Your task to perform on an android device: turn off translation in the chrome app Image 0: 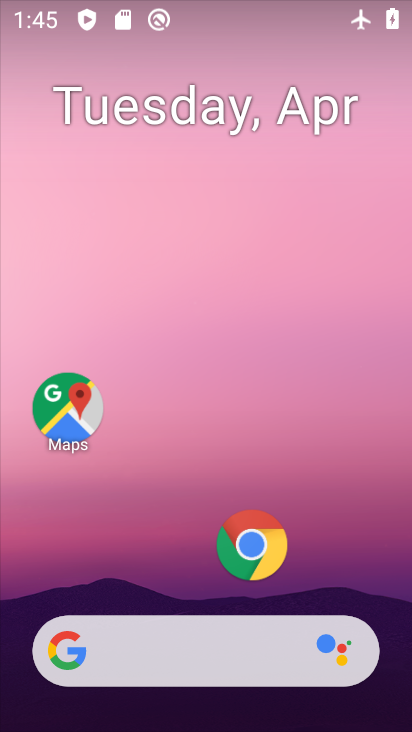
Step 0: drag from (147, 528) to (207, 176)
Your task to perform on an android device: turn off translation in the chrome app Image 1: 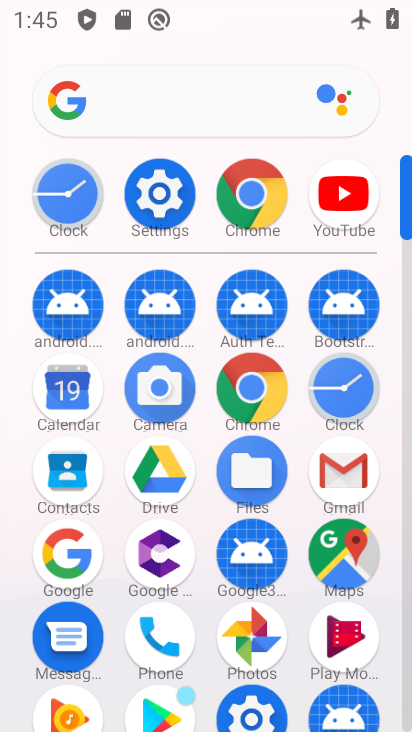
Step 1: click (270, 183)
Your task to perform on an android device: turn off translation in the chrome app Image 2: 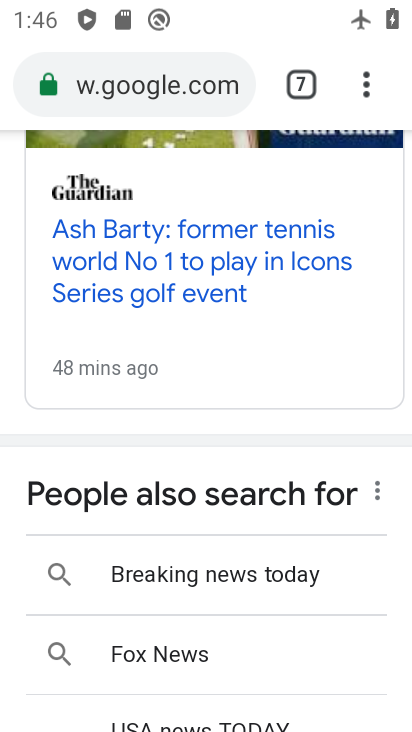
Step 2: click (369, 87)
Your task to perform on an android device: turn off translation in the chrome app Image 3: 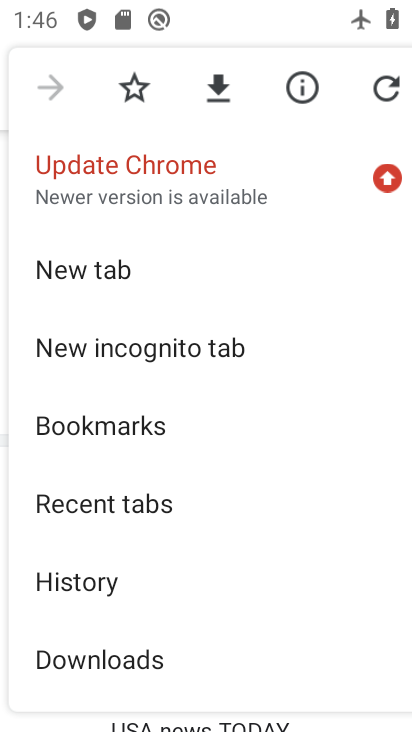
Step 3: drag from (203, 592) to (264, 235)
Your task to perform on an android device: turn off translation in the chrome app Image 4: 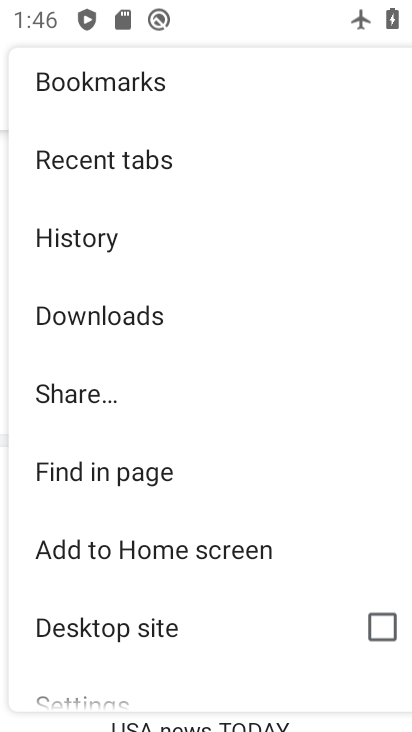
Step 4: drag from (144, 629) to (223, 305)
Your task to perform on an android device: turn off translation in the chrome app Image 5: 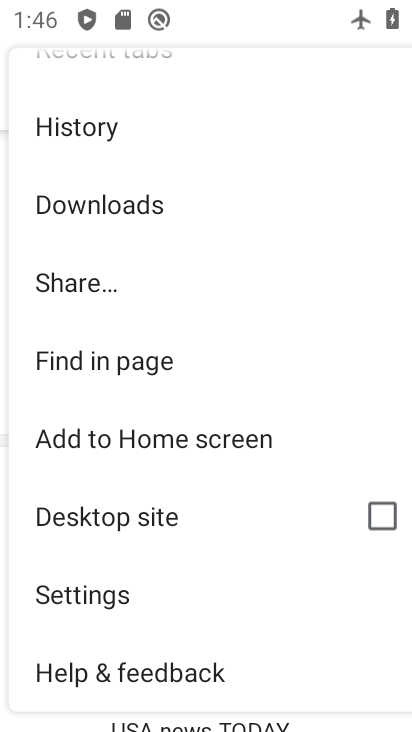
Step 5: click (133, 589)
Your task to perform on an android device: turn off translation in the chrome app Image 6: 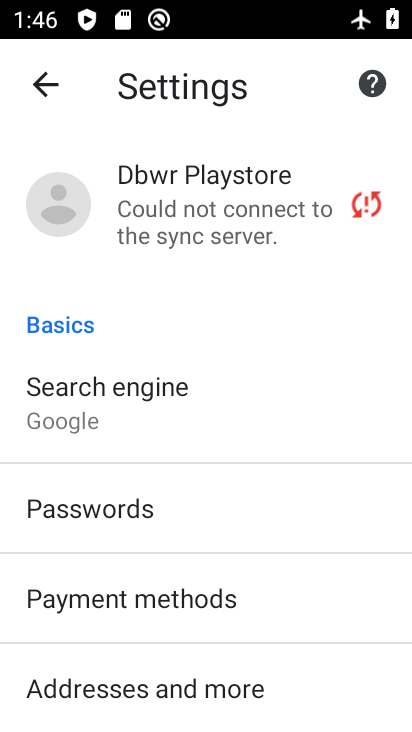
Step 6: drag from (236, 643) to (323, 179)
Your task to perform on an android device: turn off translation in the chrome app Image 7: 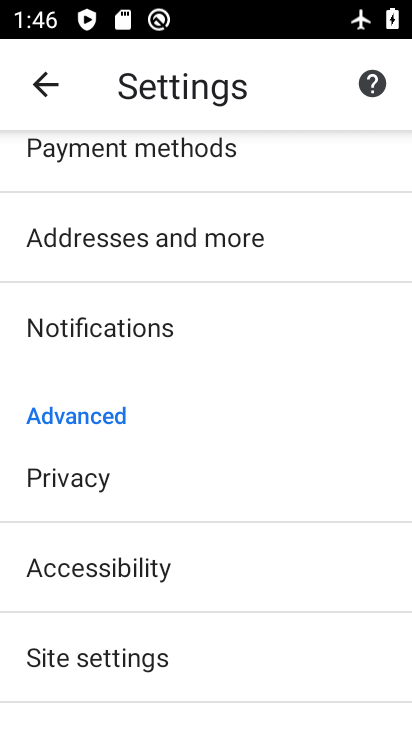
Step 7: drag from (161, 636) to (207, 208)
Your task to perform on an android device: turn off translation in the chrome app Image 8: 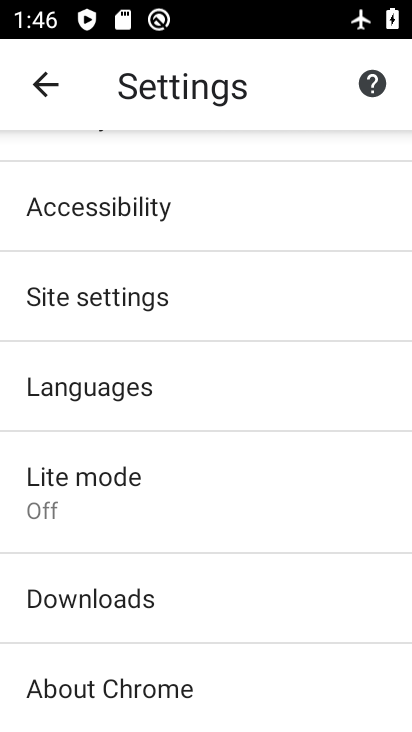
Step 8: click (148, 386)
Your task to perform on an android device: turn off translation in the chrome app Image 9: 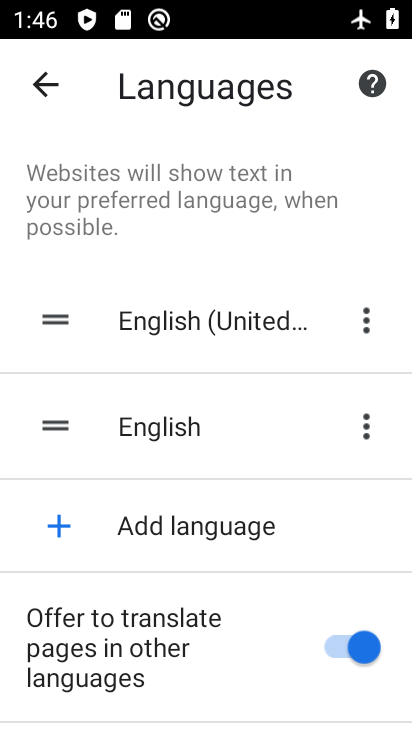
Step 9: click (341, 649)
Your task to perform on an android device: turn off translation in the chrome app Image 10: 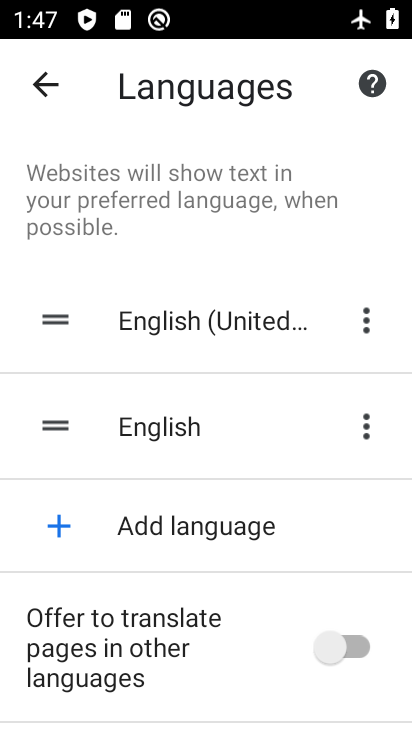
Step 10: task complete